Your task to perform on an android device: Open ESPN.com Image 0: 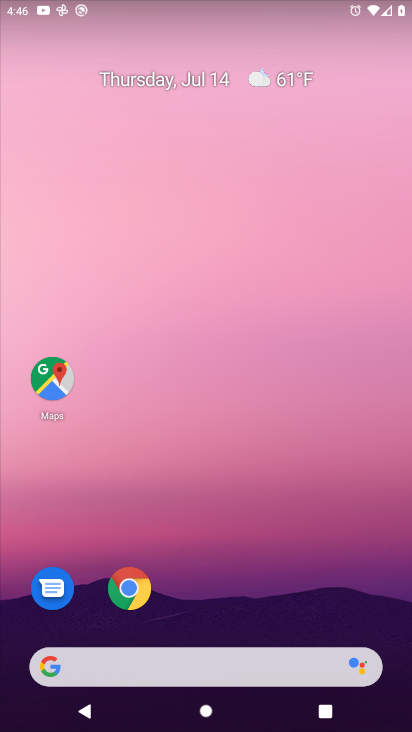
Step 0: press home button
Your task to perform on an android device: Open ESPN.com Image 1: 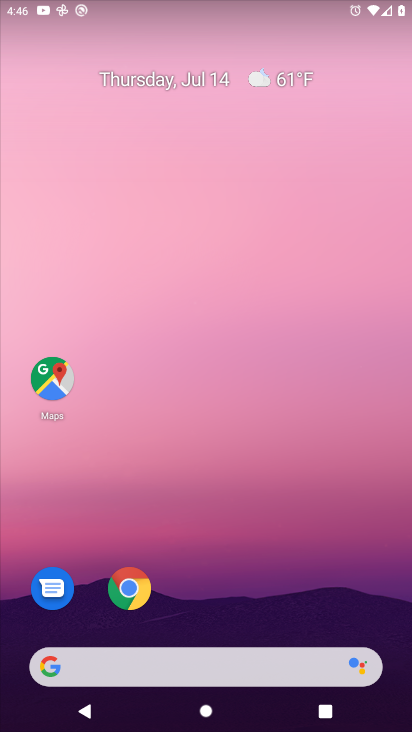
Step 1: click (51, 678)
Your task to perform on an android device: Open ESPN.com Image 2: 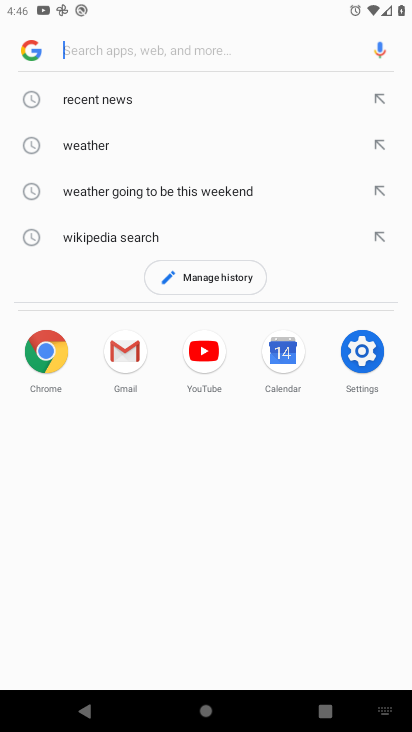
Step 2: type "ESPN.com"
Your task to perform on an android device: Open ESPN.com Image 3: 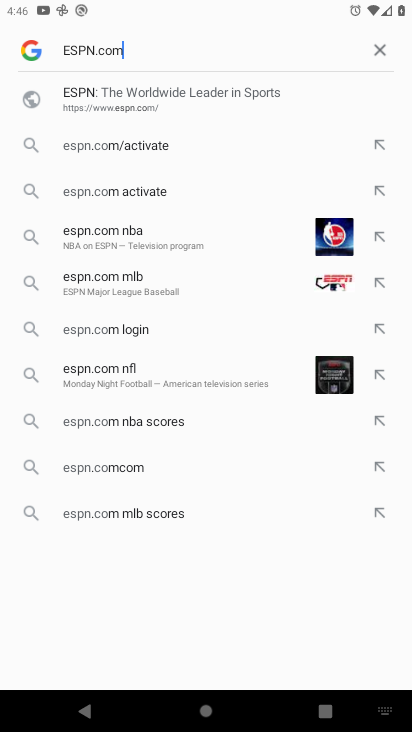
Step 3: press enter
Your task to perform on an android device: Open ESPN.com Image 4: 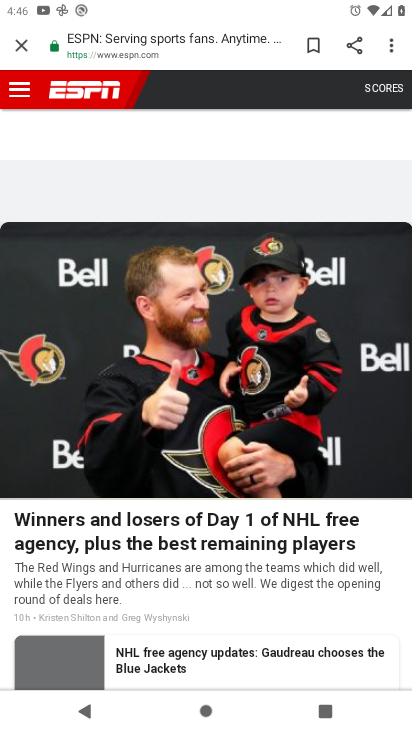
Step 4: task complete